Your task to perform on an android device: Open accessibility settings Image 0: 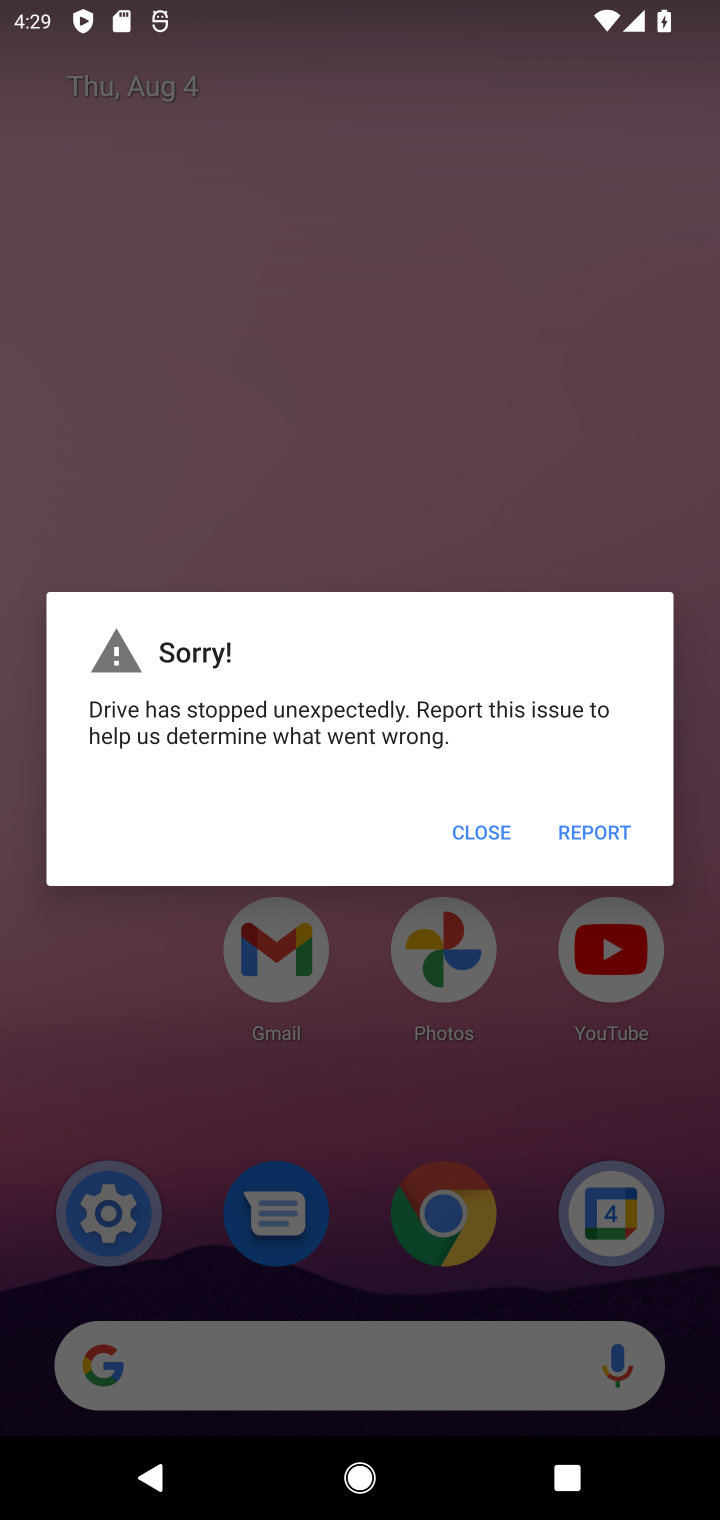
Step 0: press home button
Your task to perform on an android device: Open accessibility settings Image 1: 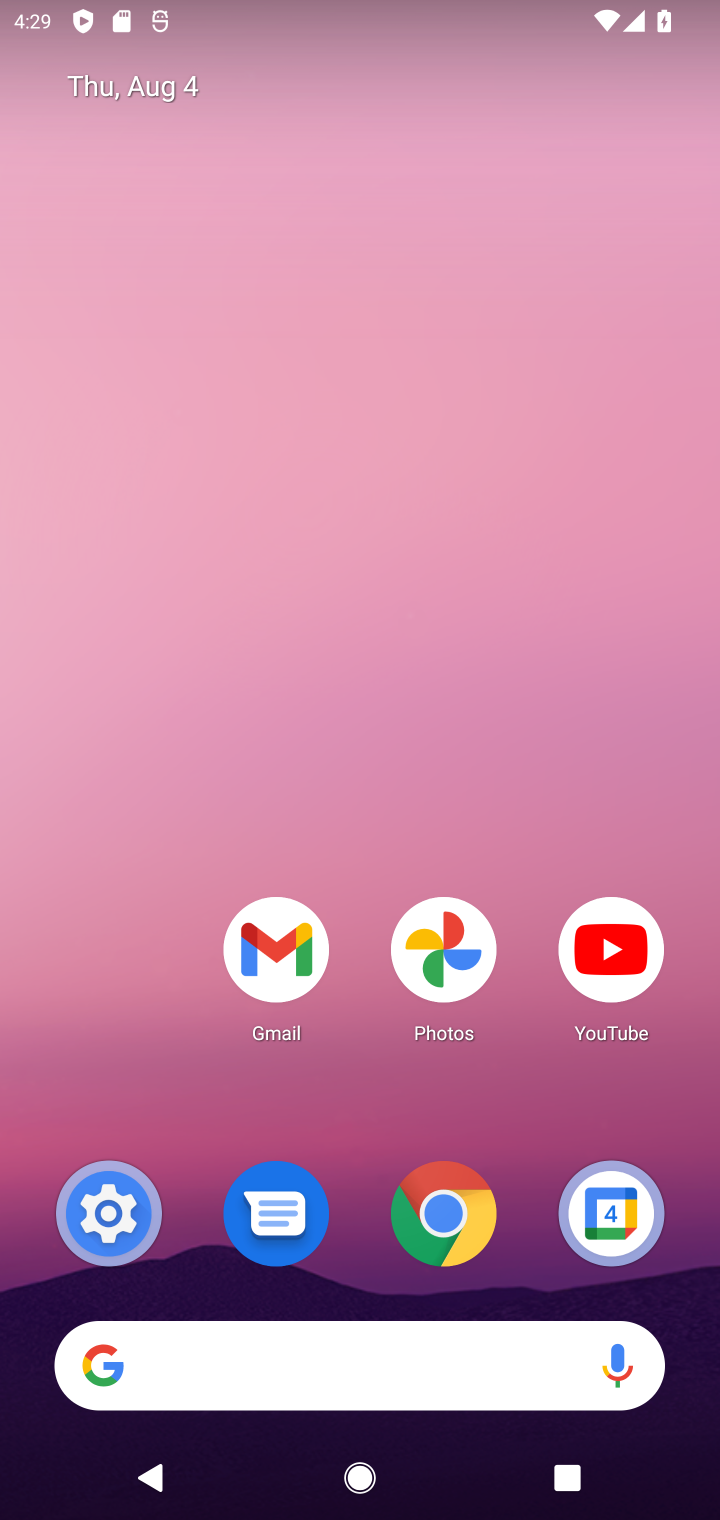
Step 1: drag from (127, 1084) to (156, 334)
Your task to perform on an android device: Open accessibility settings Image 2: 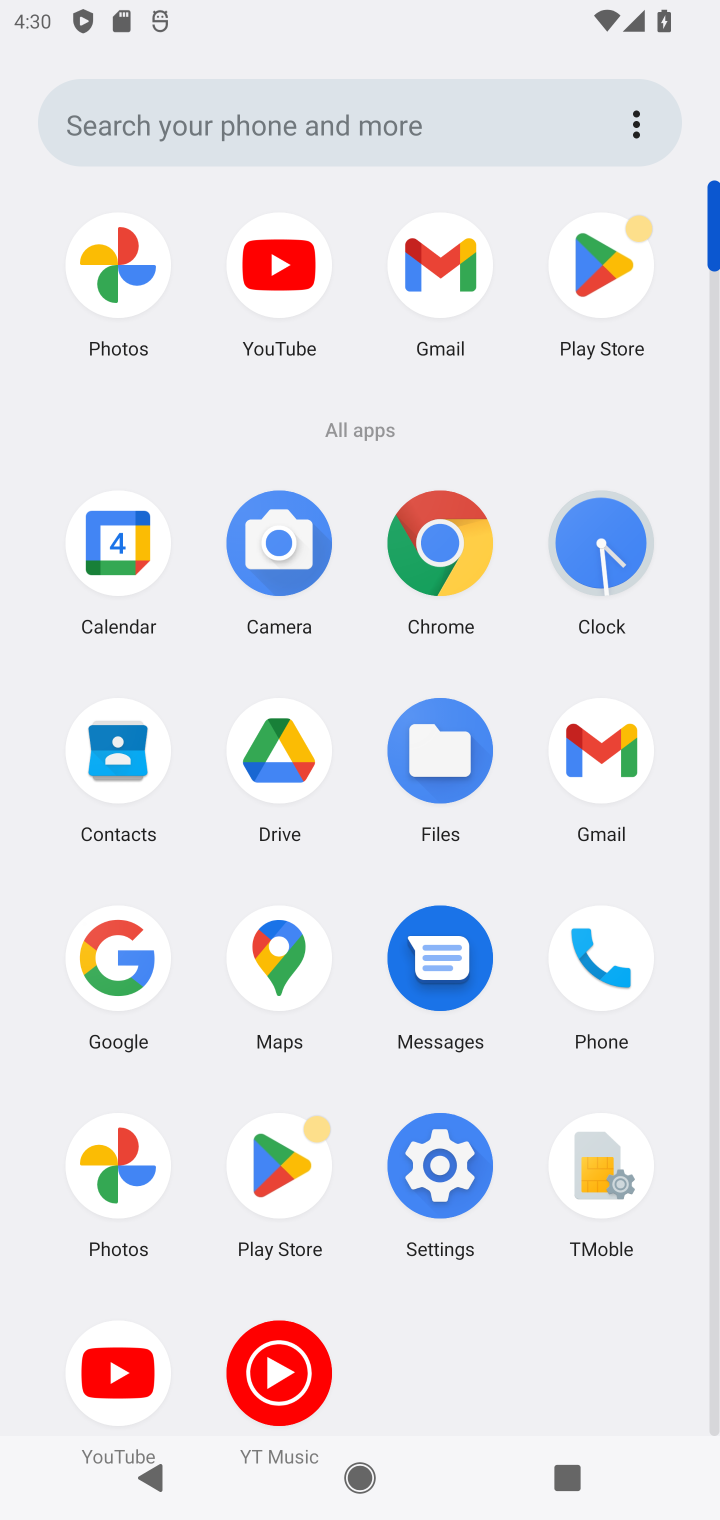
Step 2: click (441, 1156)
Your task to perform on an android device: Open accessibility settings Image 3: 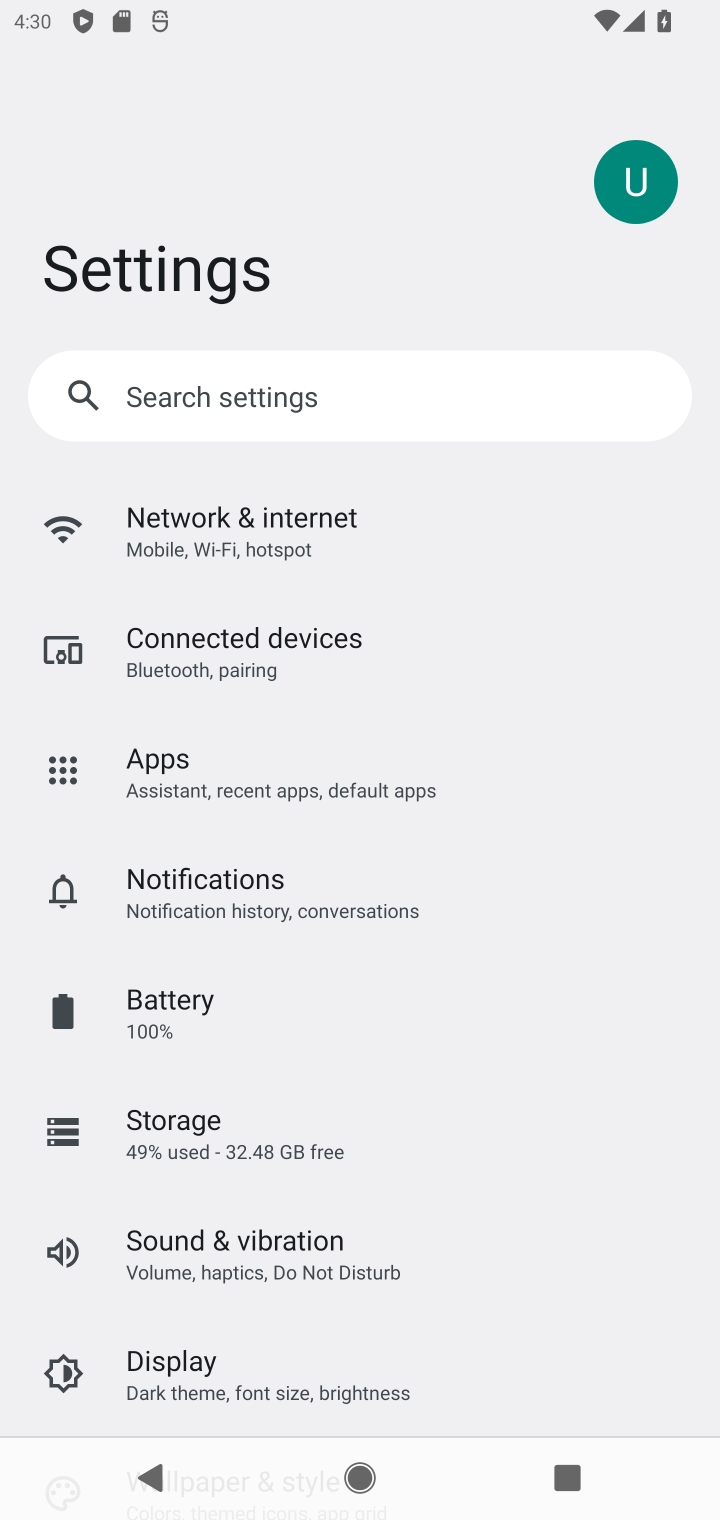
Step 3: drag from (540, 1076) to (552, 816)
Your task to perform on an android device: Open accessibility settings Image 4: 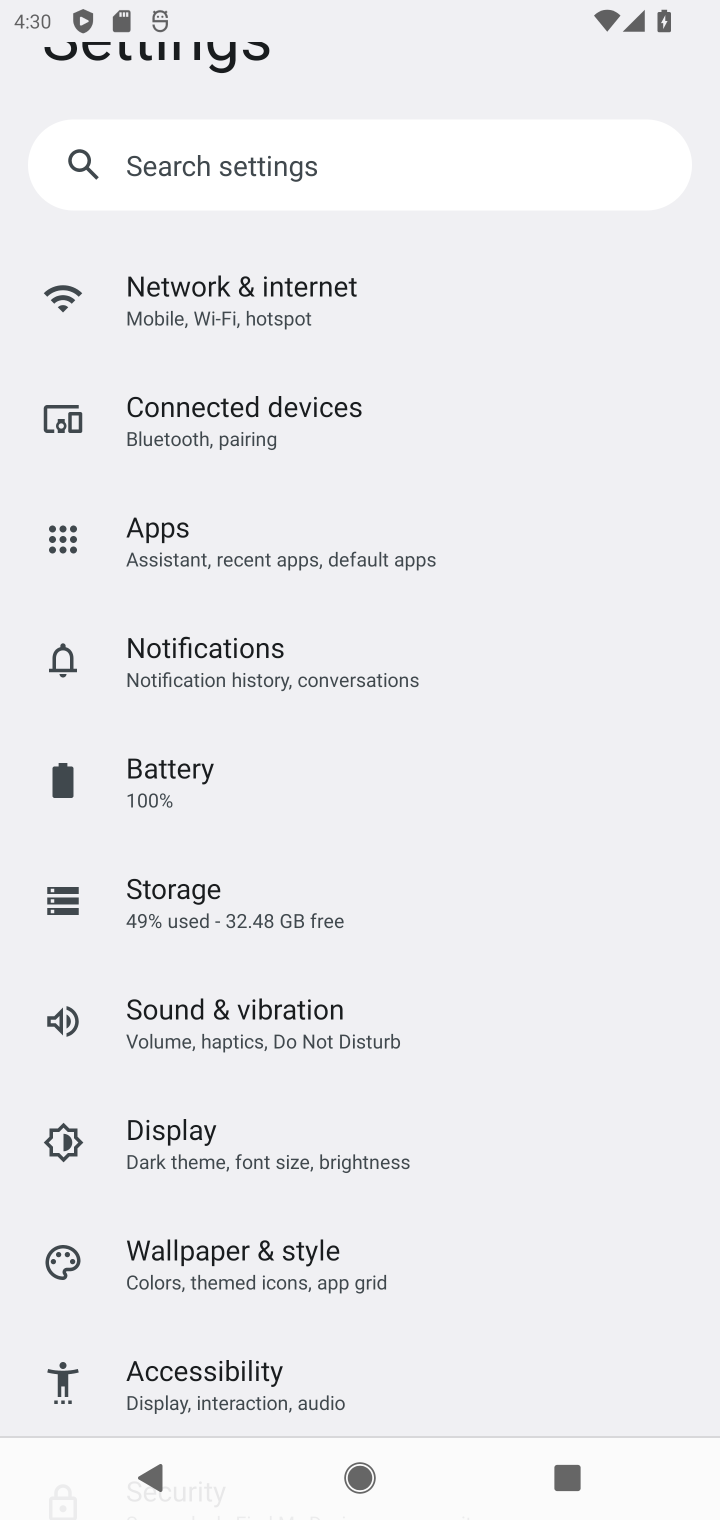
Step 4: drag from (535, 1147) to (562, 774)
Your task to perform on an android device: Open accessibility settings Image 5: 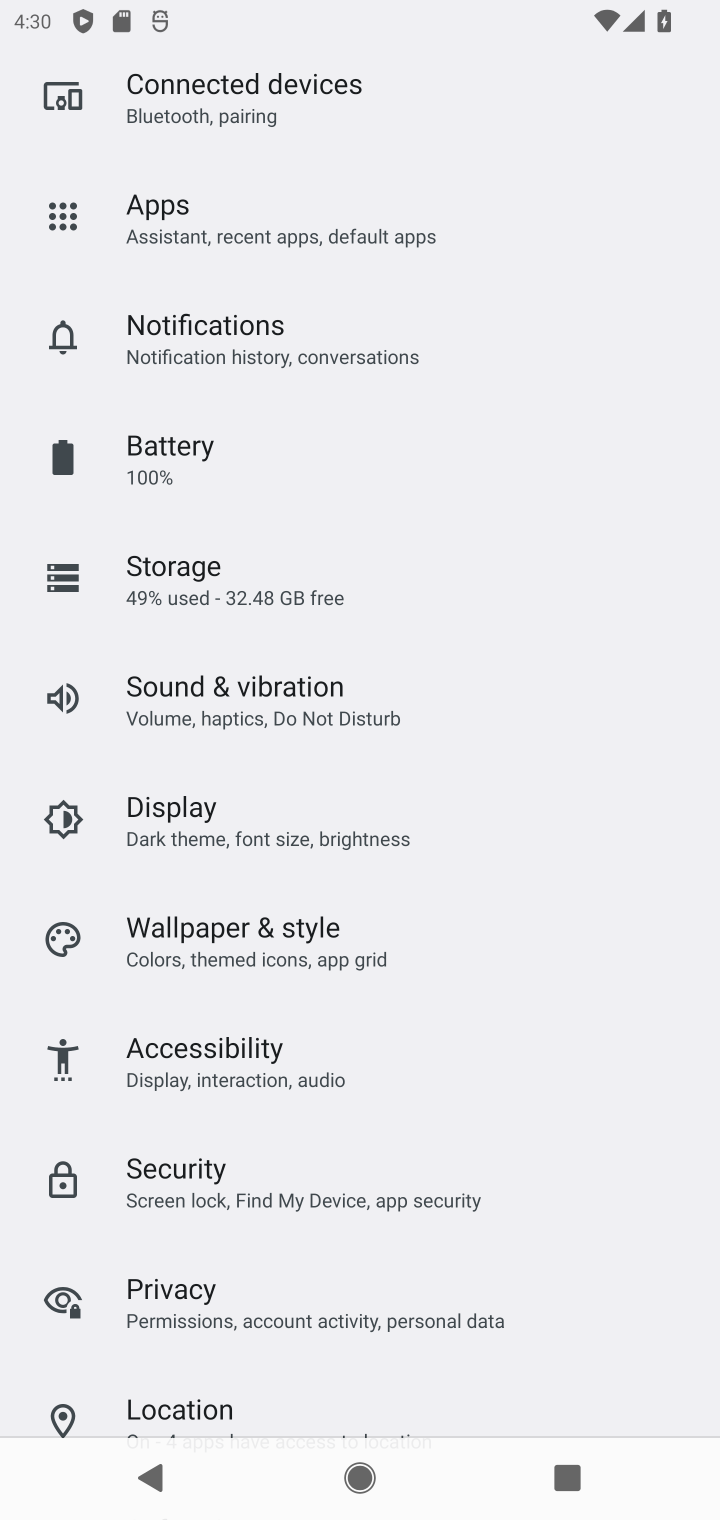
Step 5: click (391, 1077)
Your task to perform on an android device: Open accessibility settings Image 6: 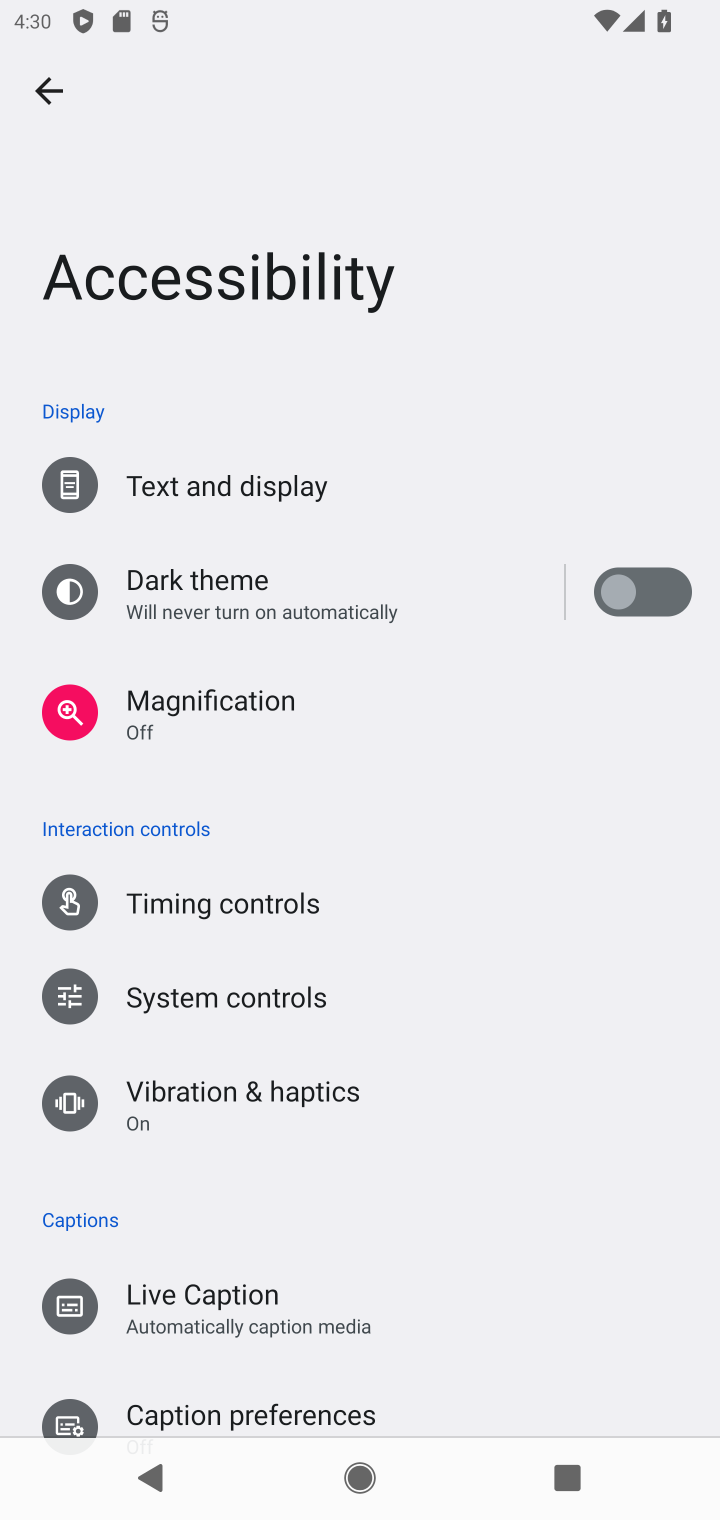
Step 6: task complete